Your task to perform on an android device: What time is it in London? Image 0: 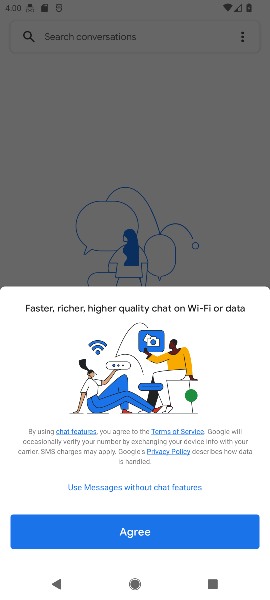
Step 0: press home button
Your task to perform on an android device: What time is it in London? Image 1: 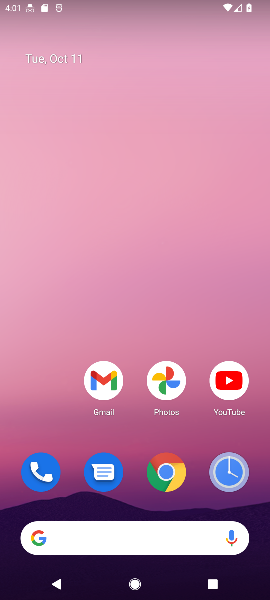
Step 1: click (169, 479)
Your task to perform on an android device: What time is it in London? Image 2: 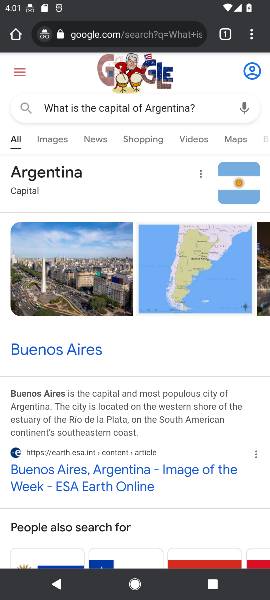
Step 2: click (104, 36)
Your task to perform on an android device: What time is it in London? Image 3: 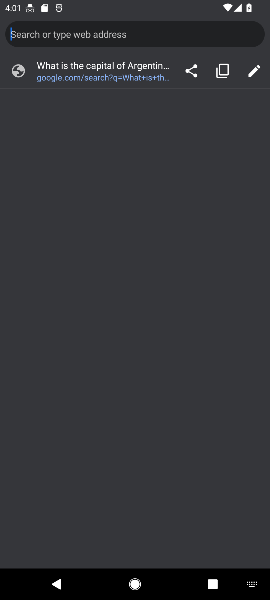
Step 3: type "What time is it in London?"
Your task to perform on an android device: What time is it in London? Image 4: 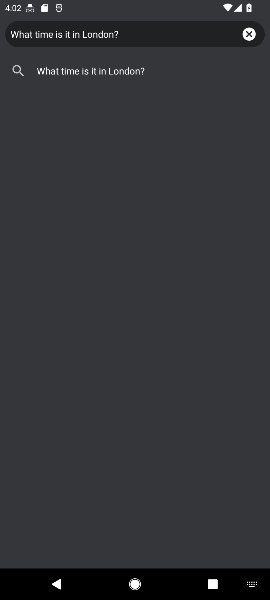
Step 4: click (101, 68)
Your task to perform on an android device: What time is it in London? Image 5: 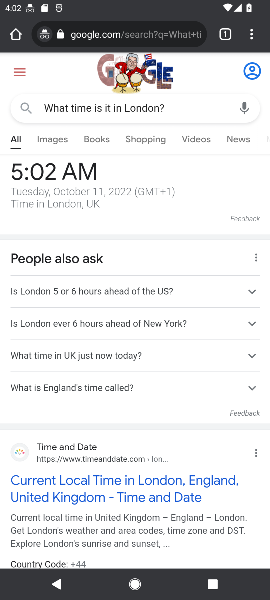
Step 5: task complete